Your task to perform on an android device: Check the weather Image 0: 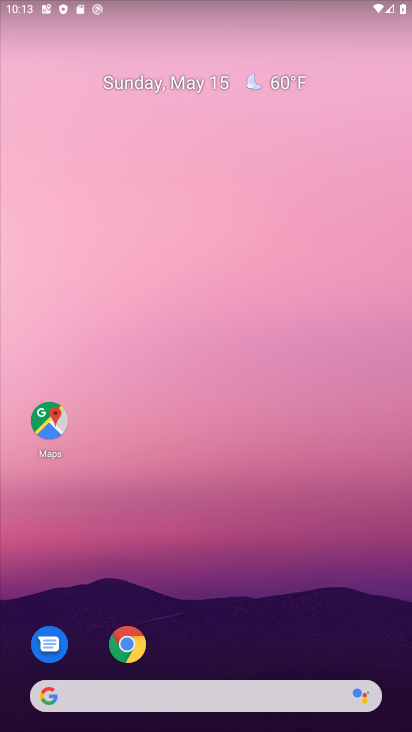
Step 0: drag from (169, 678) to (225, 314)
Your task to perform on an android device: Check the weather Image 1: 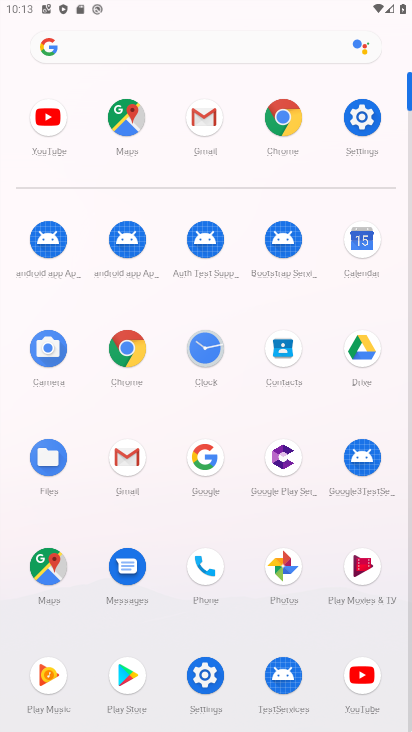
Step 1: click (204, 470)
Your task to perform on an android device: Check the weather Image 2: 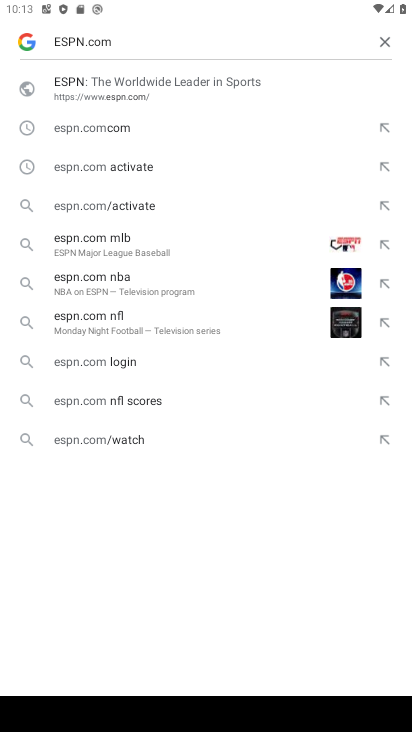
Step 2: drag from (126, 40) to (43, 40)
Your task to perform on an android device: Check the weather Image 3: 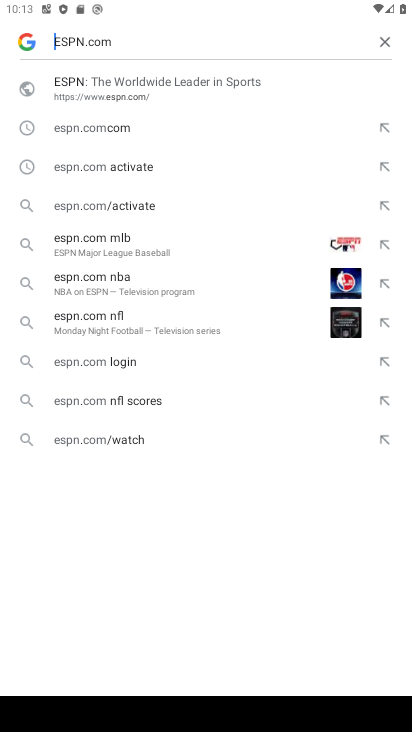
Step 3: click (383, 45)
Your task to perform on an android device: Check the weather Image 4: 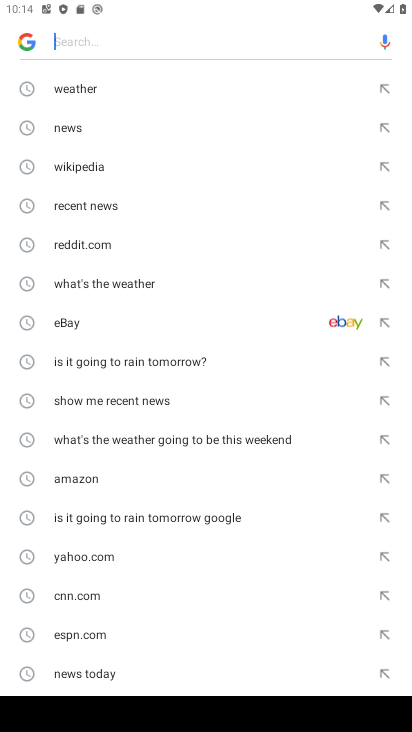
Step 4: click (59, 96)
Your task to perform on an android device: Check the weather Image 5: 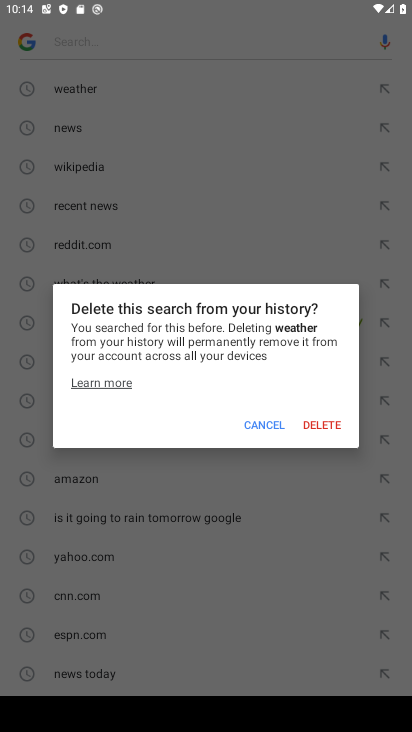
Step 5: click (267, 419)
Your task to perform on an android device: Check the weather Image 6: 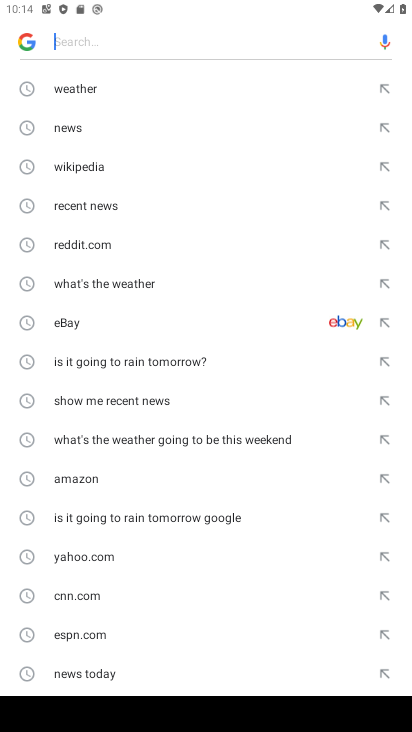
Step 6: click (82, 100)
Your task to perform on an android device: Check the weather Image 7: 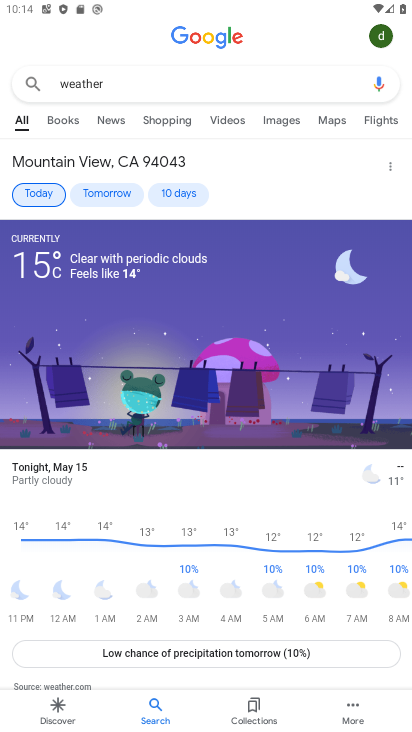
Step 7: drag from (159, 598) to (117, 311)
Your task to perform on an android device: Check the weather Image 8: 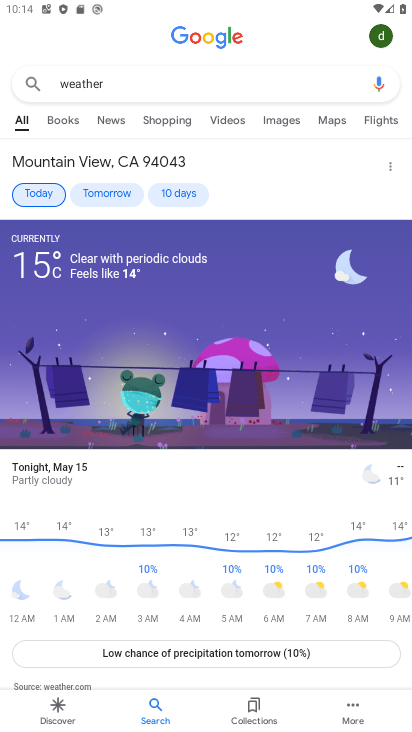
Step 8: click (239, 649)
Your task to perform on an android device: Check the weather Image 9: 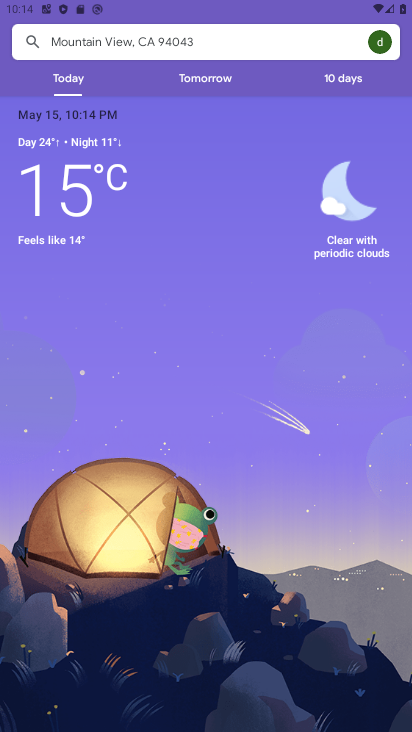
Step 9: task complete